Your task to perform on an android device: set default search engine in the chrome app Image 0: 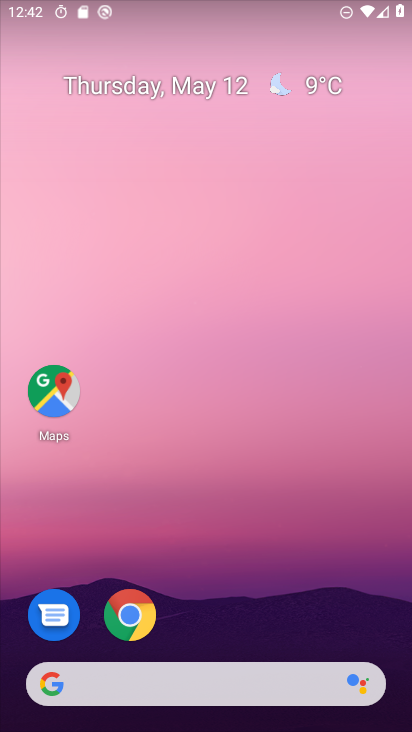
Step 0: drag from (313, 583) to (235, 145)
Your task to perform on an android device: set default search engine in the chrome app Image 1: 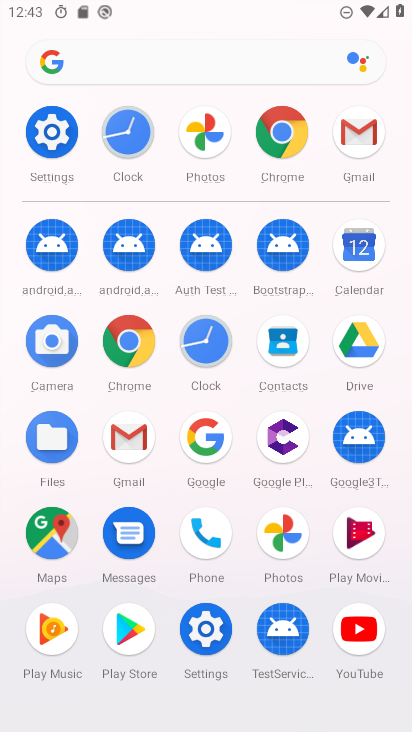
Step 1: click (138, 347)
Your task to perform on an android device: set default search engine in the chrome app Image 2: 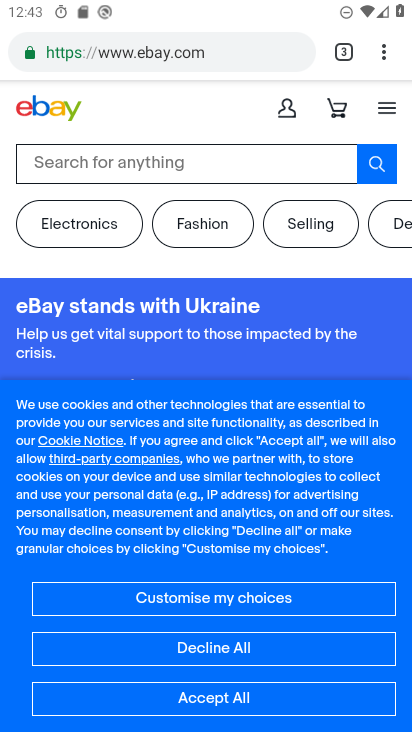
Step 2: drag from (380, 44) to (210, 644)
Your task to perform on an android device: set default search engine in the chrome app Image 3: 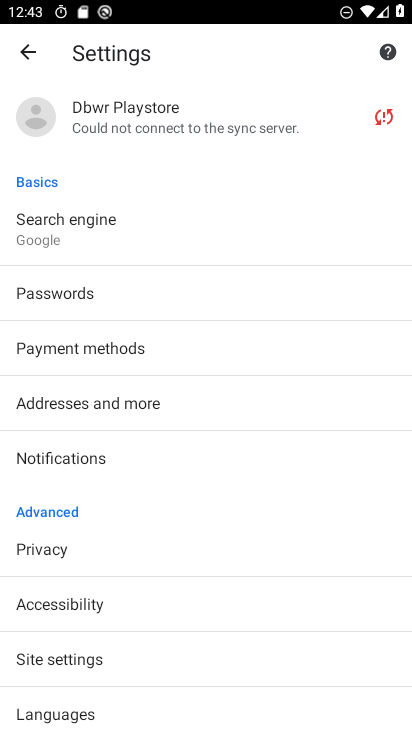
Step 3: click (97, 217)
Your task to perform on an android device: set default search engine in the chrome app Image 4: 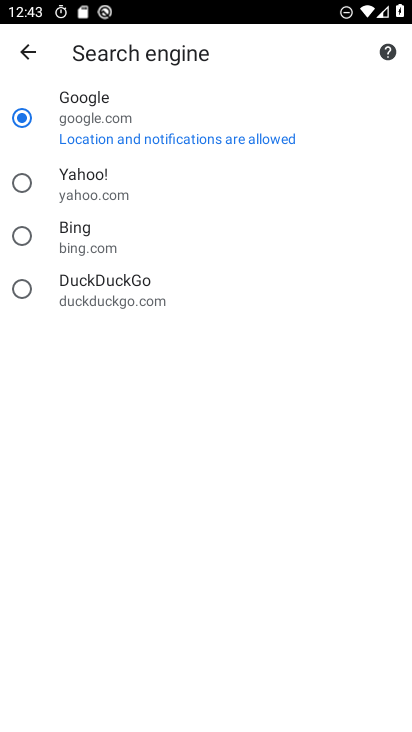
Step 4: task complete